Your task to perform on an android device: turn on bluetooth scan Image 0: 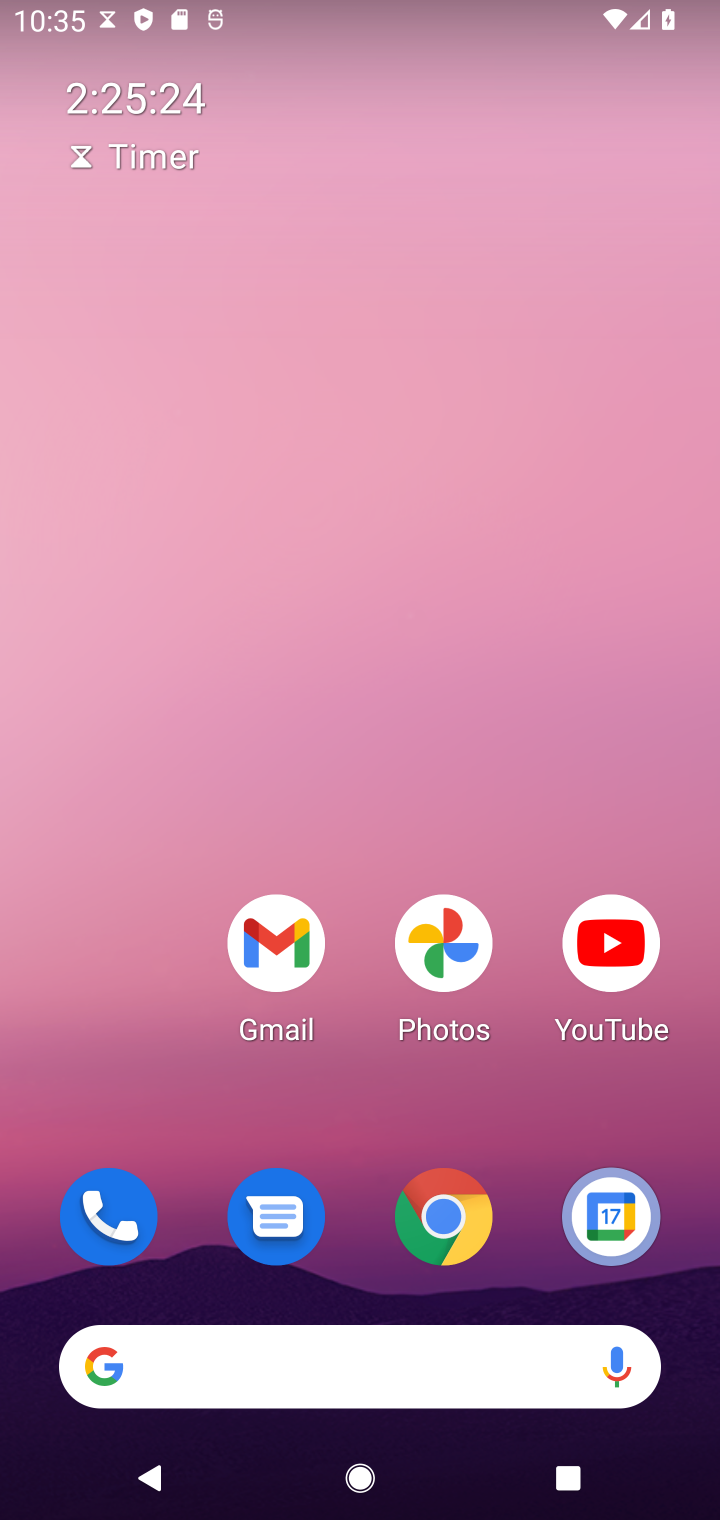
Step 0: drag from (147, 1031) to (366, 30)
Your task to perform on an android device: turn on bluetooth scan Image 1: 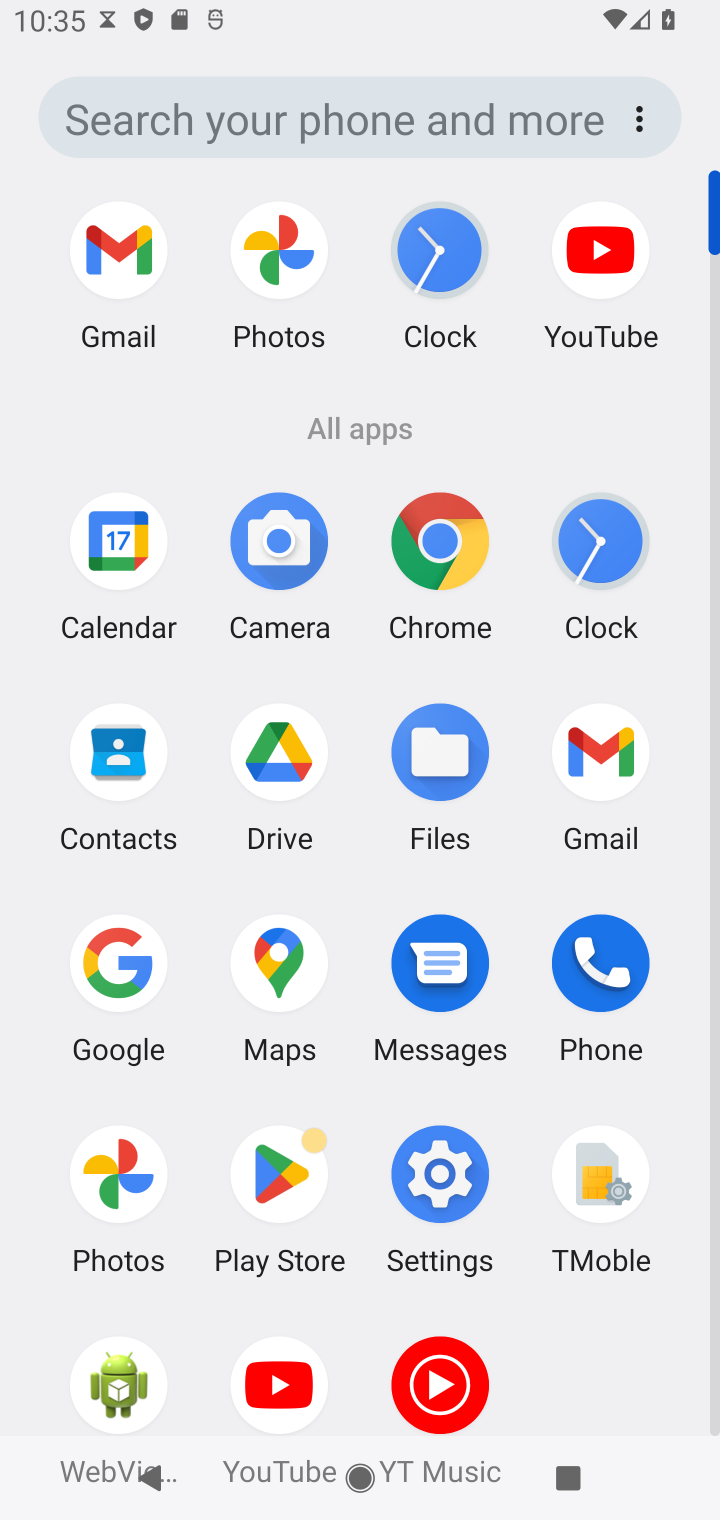
Step 1: click (436, 1184)
Your task to perform on an android device: turn on bluetooth scan Image 2: 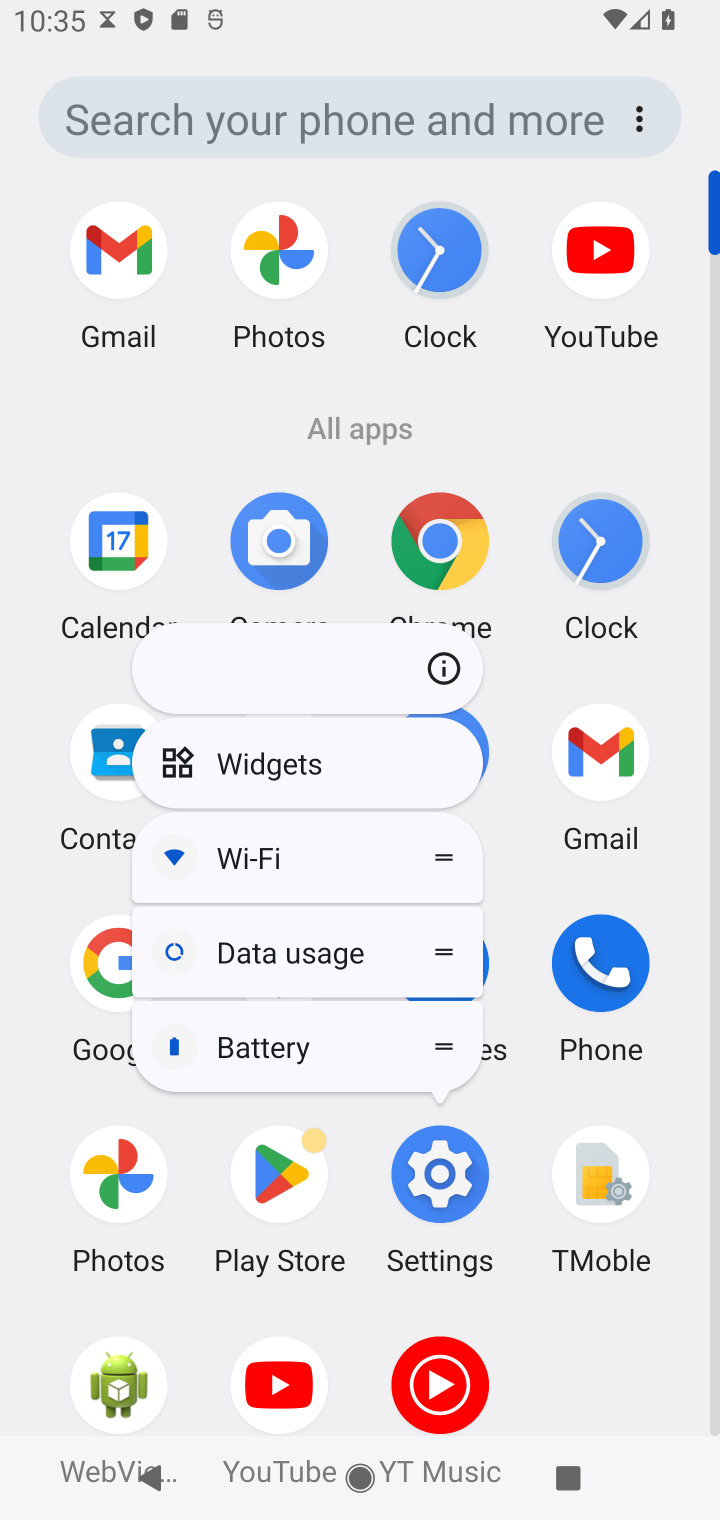
Step 2: click (445, 1182)
Your task to perform on an android device: turn on bluetooth scan Image 3: 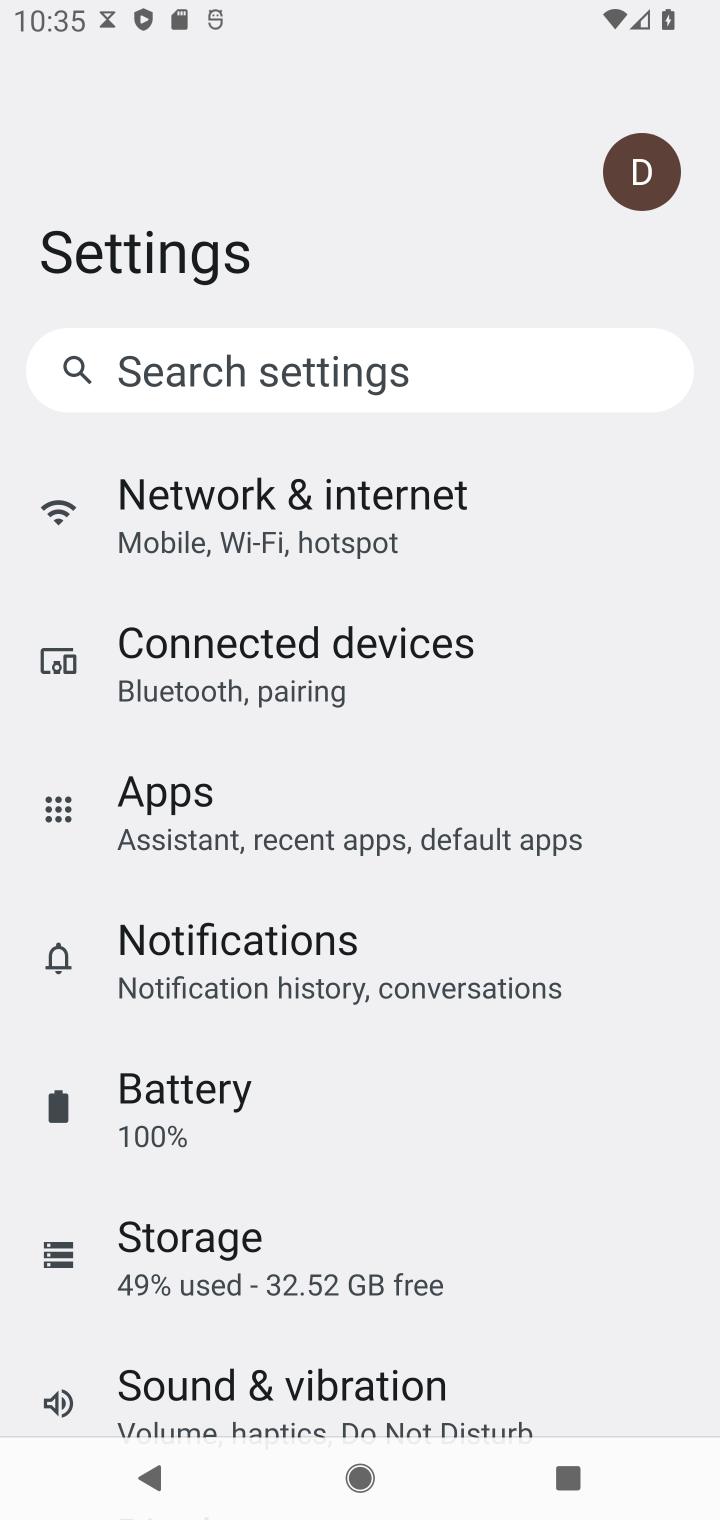
Step 3: click (268, 683)
Your task to perform on an android device: turn on bluetooth scan Image 4: 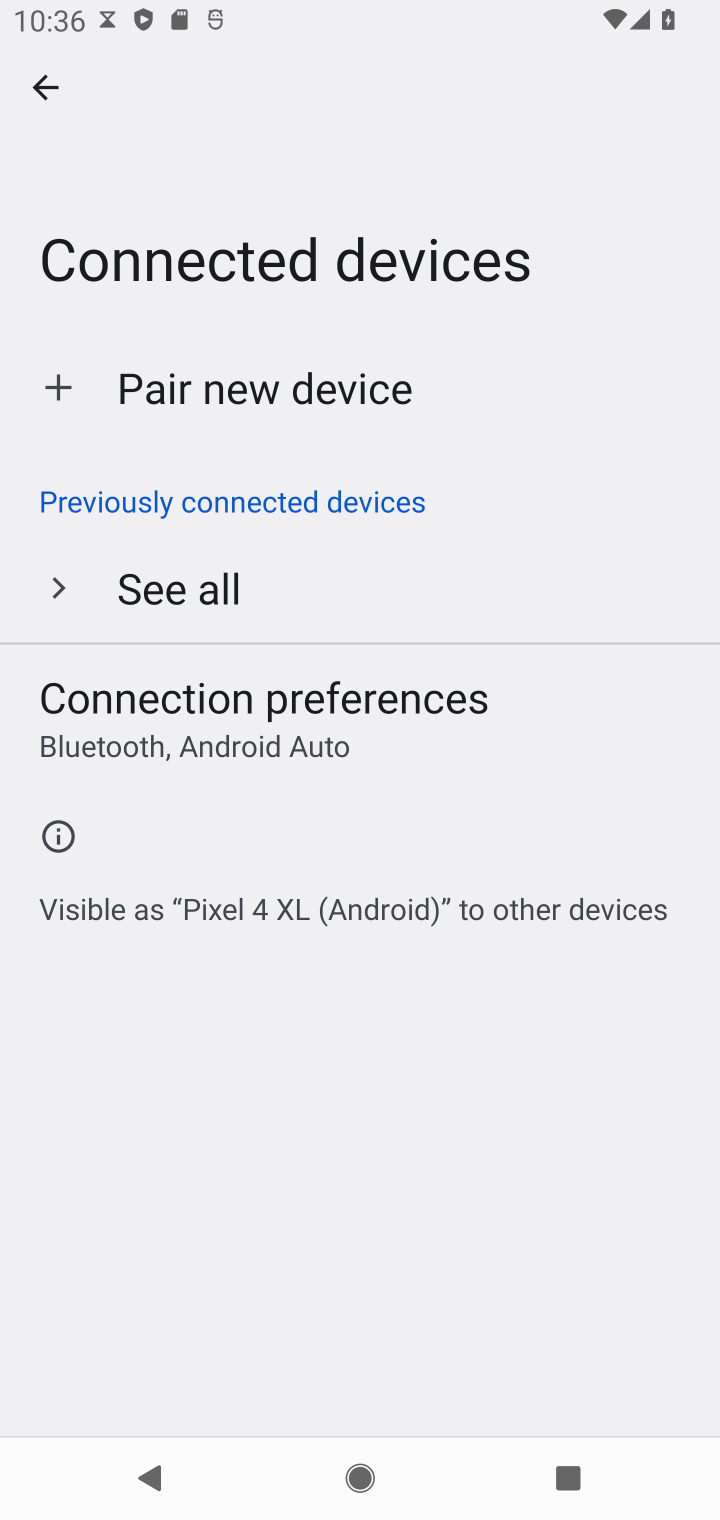
Step 4: click (215, 738)
Your task to perform on an android device: turn on bluetooth scan Image 5: 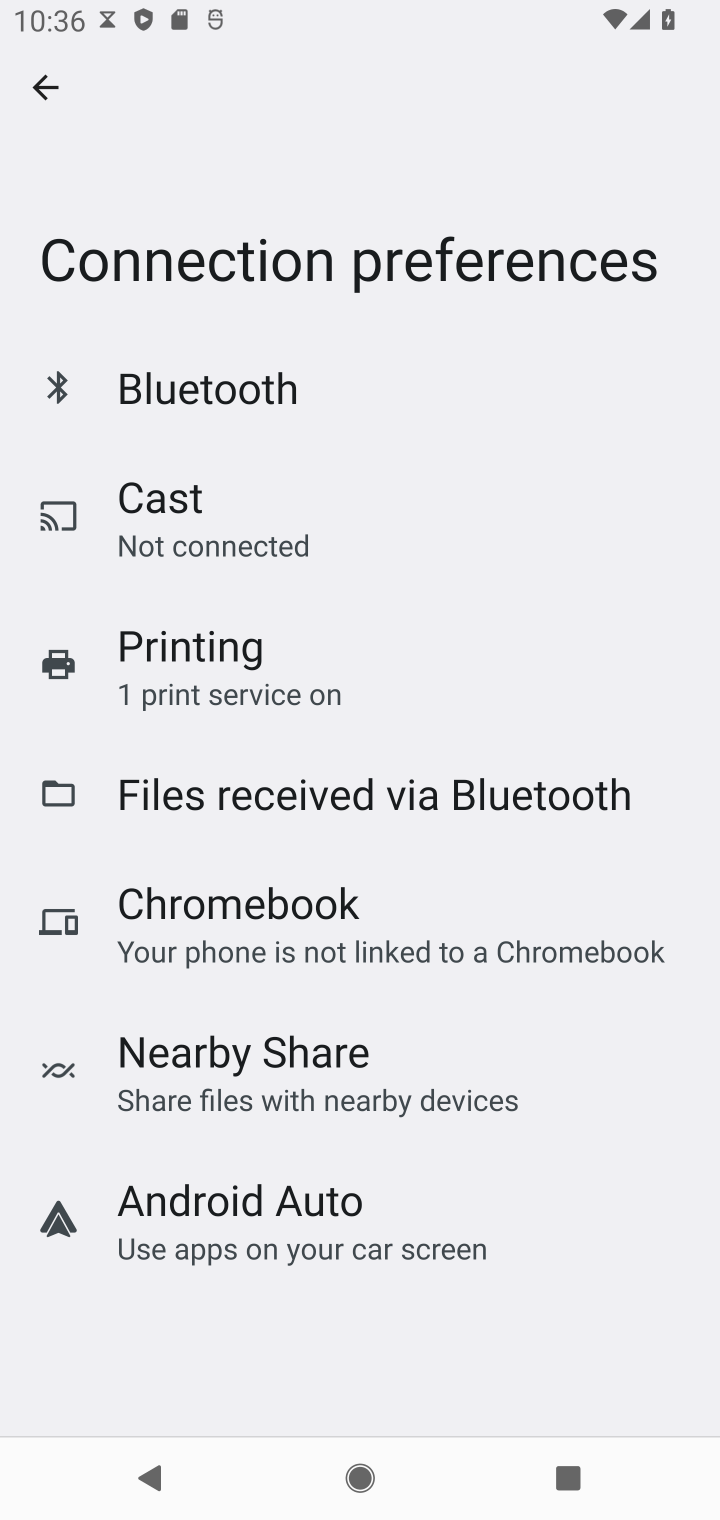
Step 5: click (272, 369)
Your task to perform on an android device: turn on bluetooth scan Image 6: 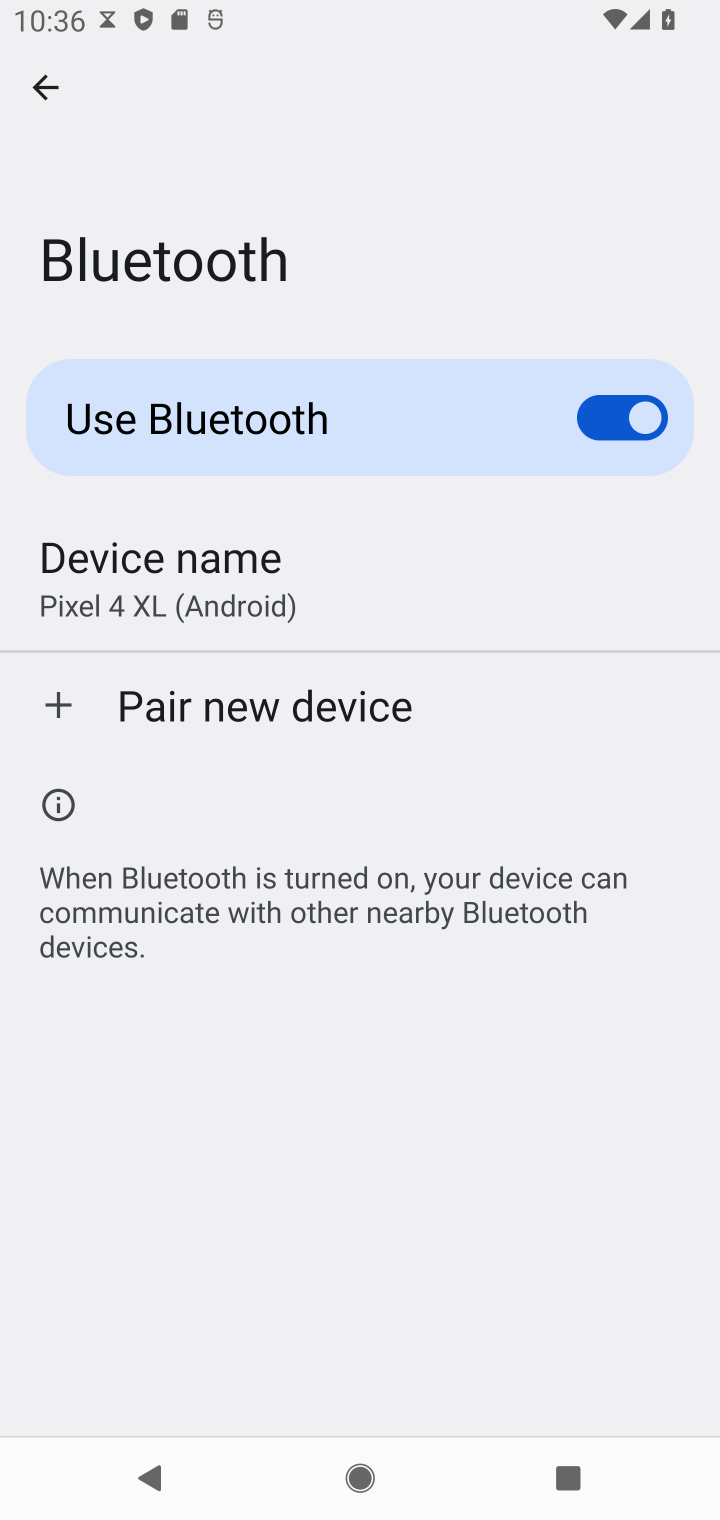
Step 6: task complete